Your task to perform on an android device: toggle data saver in the chrome app Image 0: 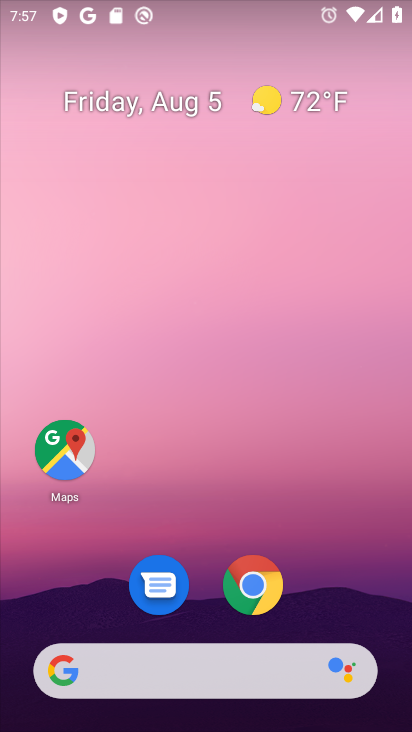
Step 0: click (278, 586)
Your task to perform on an android device: toggle data saver in the chrome app Image 1: 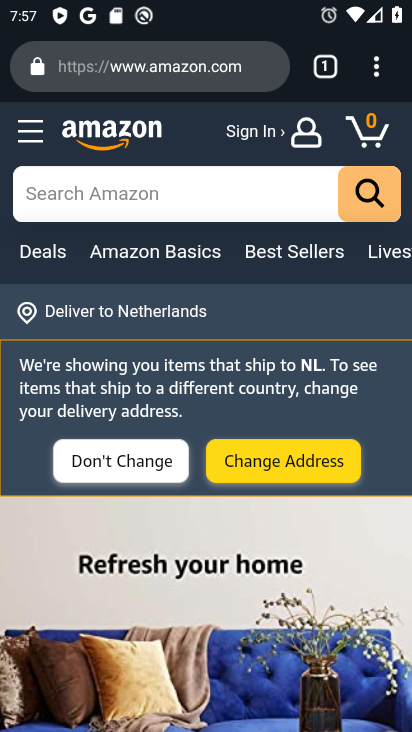
Step 1: click (373, 74)
Your task to perform on an android device: toggle data saver in the chrome app Image 2: 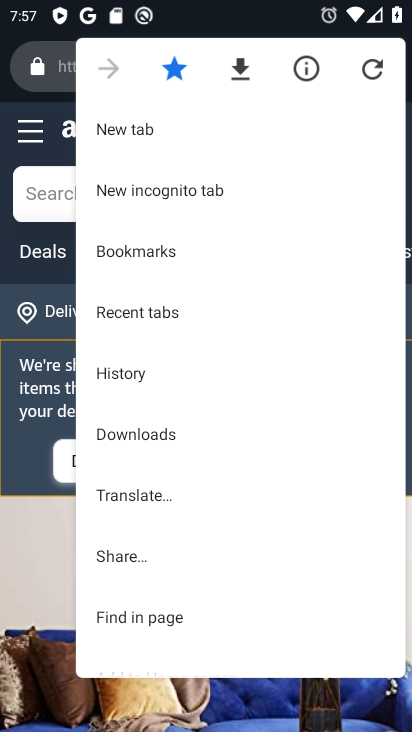
Step 2: drag from (229, 445) to (219, 72)
Your task to perform on an android device: toggle data saver in the chrome app Image 3: 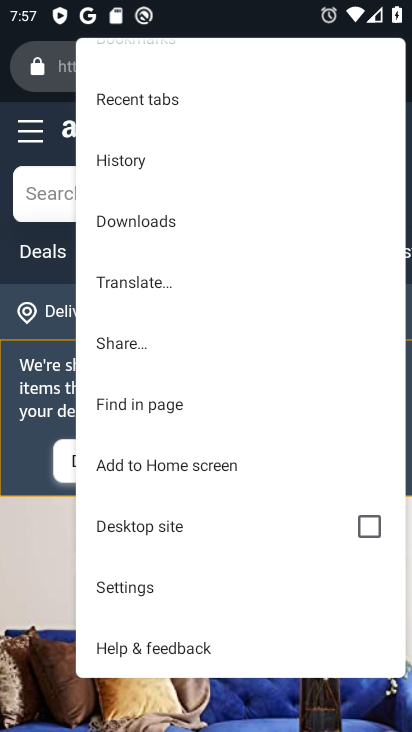
Step 3: click (176, 590)
Your task to perform on an android device: toggle data saver in the chrome app Image 4: 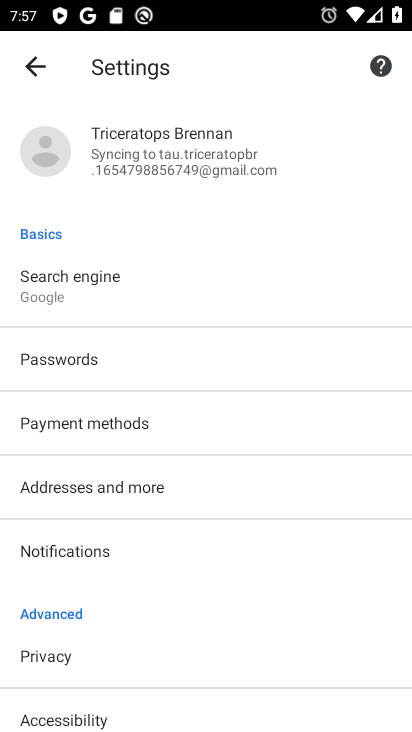
Step 4: drag from (281, 570) to (280, 190)
Your task to perform on an android device: toggle data saver in the chrome app Image 5: 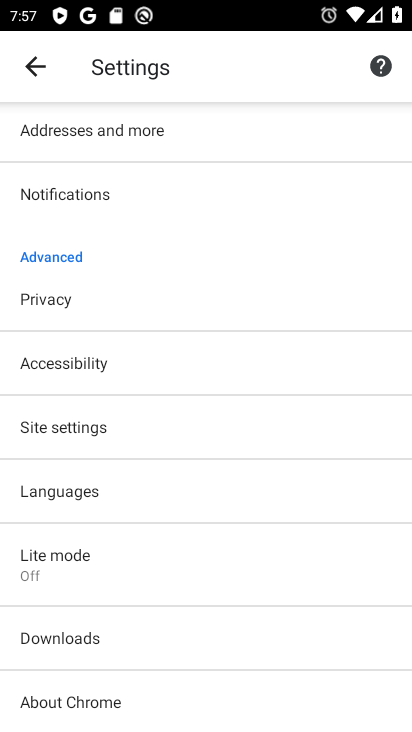
Step 5: click (215, 566)
Your task to perform on an android device: toggle data saver in the chrome app Image 6: 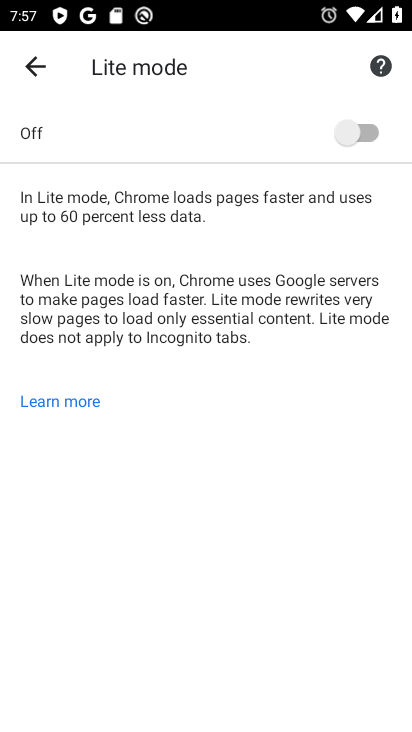
Step 6: click (365, 124)
Your task to perform on an android device: toggle data saver in the chrome app Image 7: 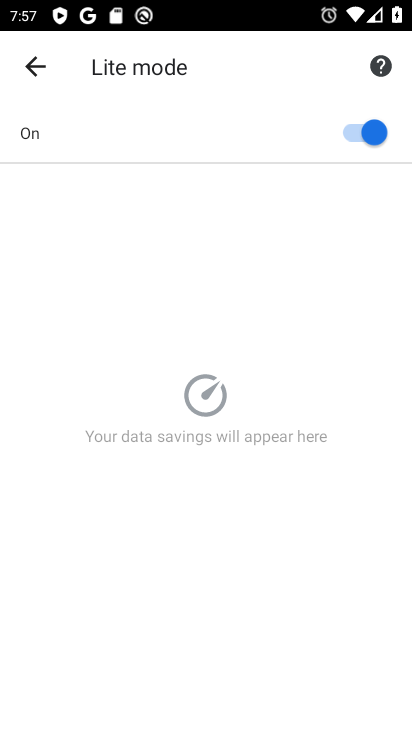
Step 7: task complete